Your task to perform on an android device: change the clock display to analog Image 0: 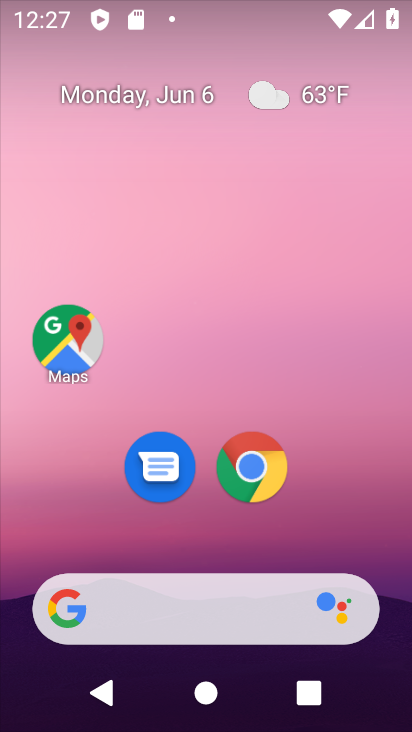
Step 0: drag from (399, 547) to (278, 24)
Your task to perform on an android device: change the clock display to analog Image 1: 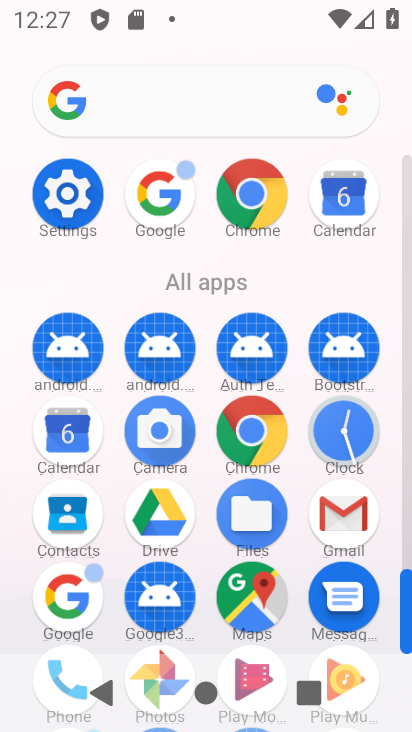
Step 1: click (356, 410)
Your task to perform on an android device: change the clock display to analog Image 2: 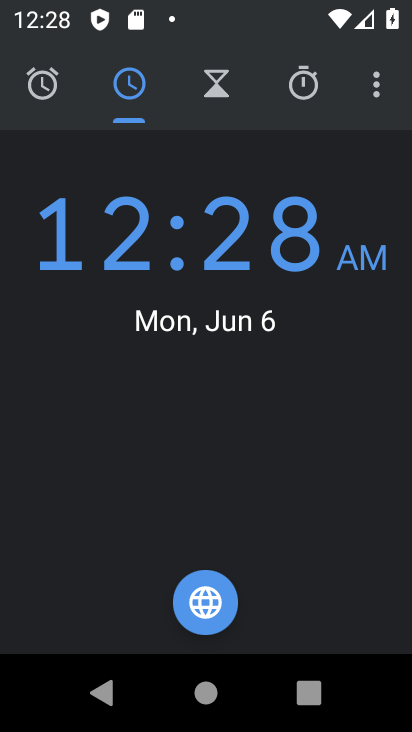
Step 2: click (374, 73)
Your task to perform on an android device: change the clock display to analog Image 3: 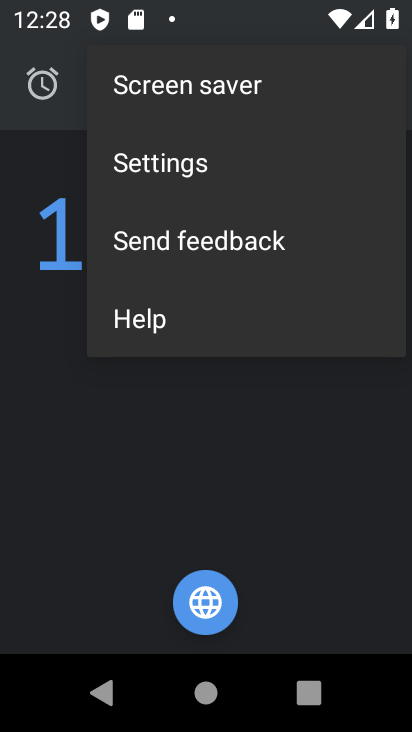
Step 3: click (146, 172)
Your task to perform on an android device: change the clock display to analog Image 4: 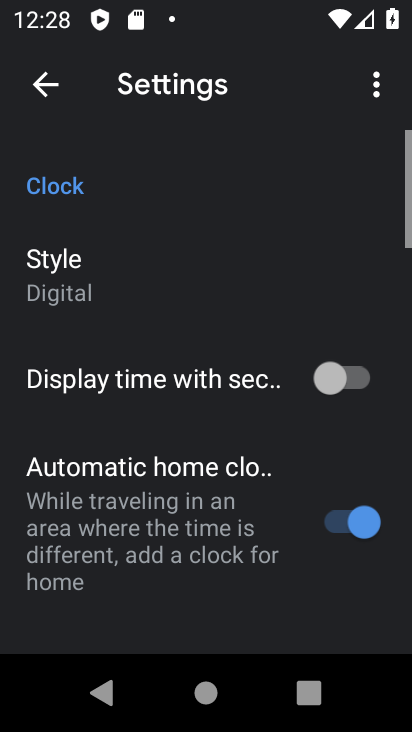
Step 4: click (177, 280)
Your task to perform on an android device: change the clock display to analog Image 5: 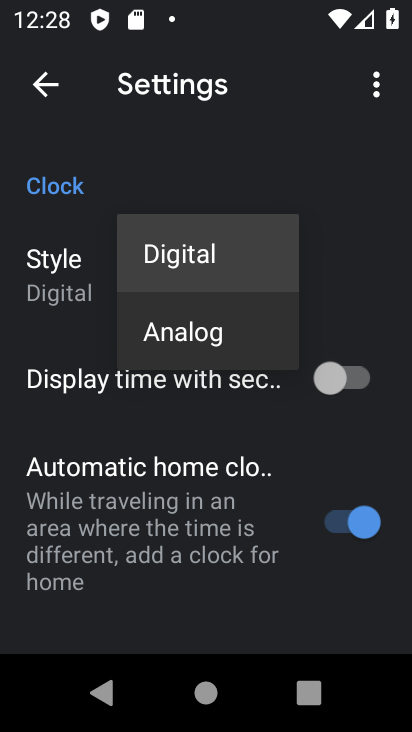
Step 5: click (186, 335)
Your task to perform on an android device: change the clock display to analog Image 6: 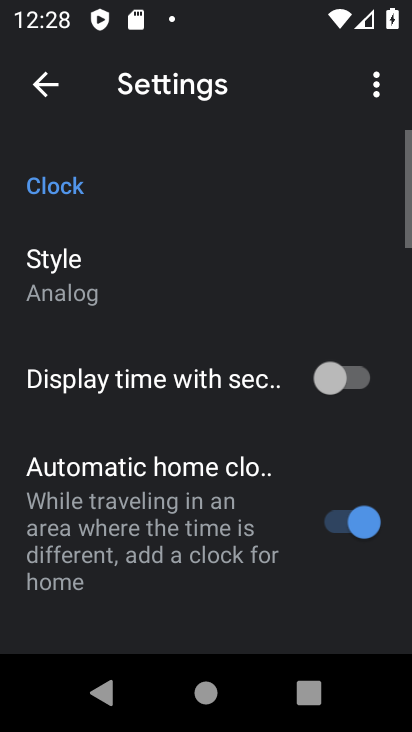
Step 6: task complete